Your task to perform on an android device: check battery use Image 0: 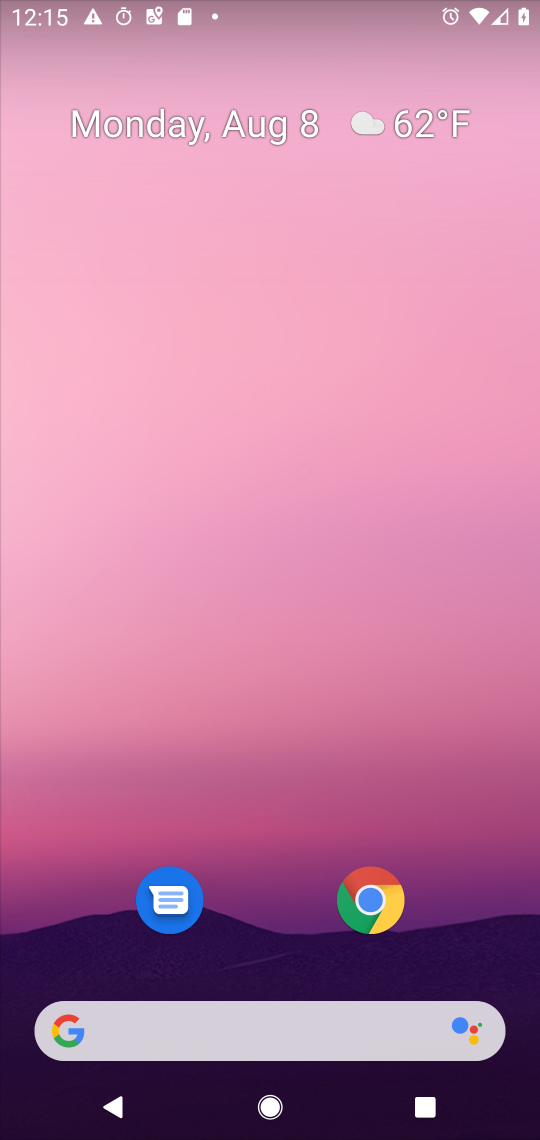
Step 0: press home button
Your task to perform on an android device: check battery use Image 1: 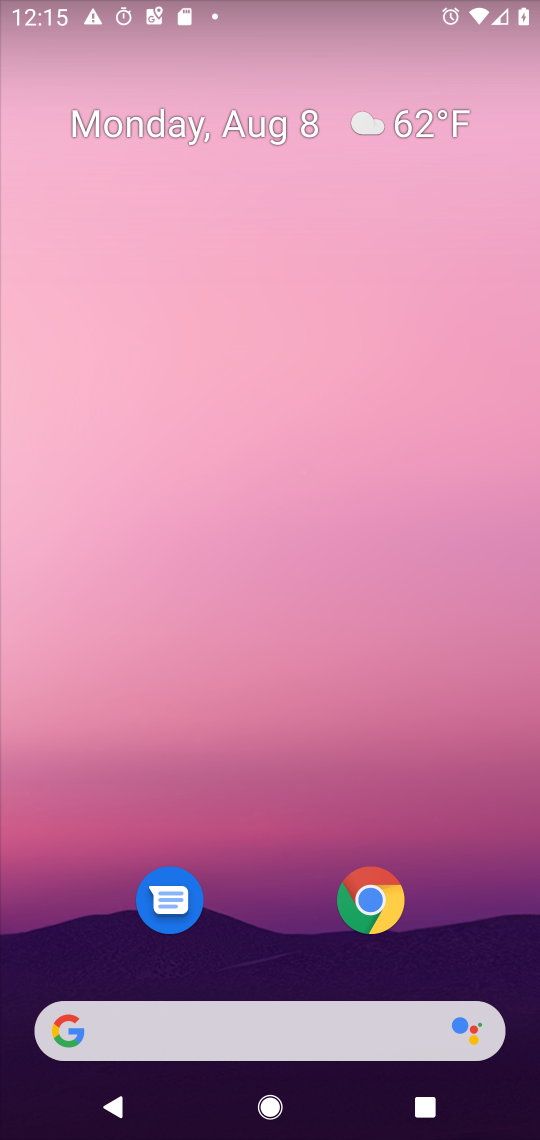
Step 1: drag from (277, 967) to (351, 52)
Your task to perform on an android device: check battery use Image 2: 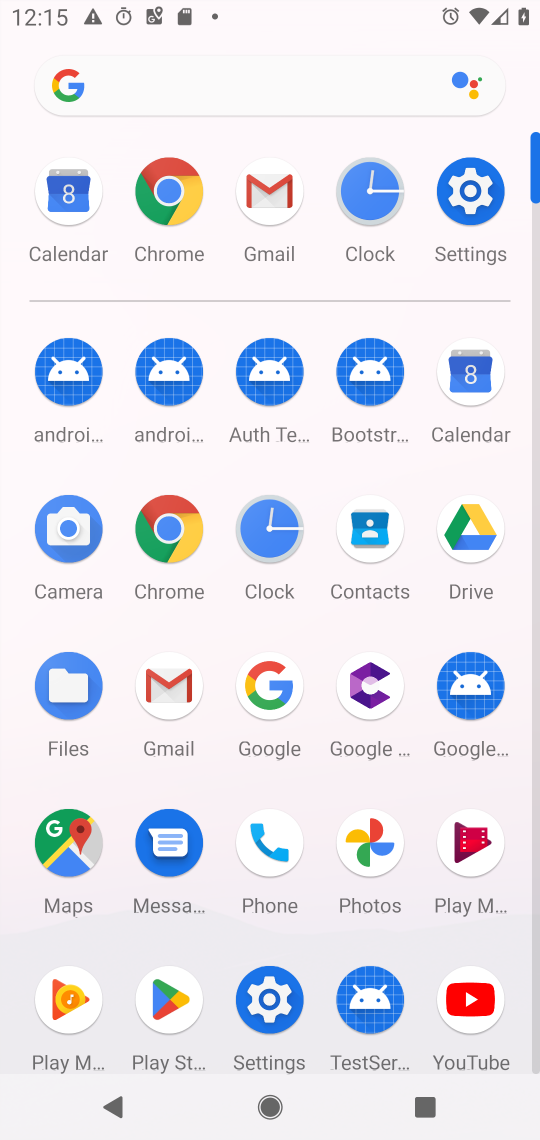
Step 2: click (465, 179)
Your task to perform on an android device: check battery use Image 3: 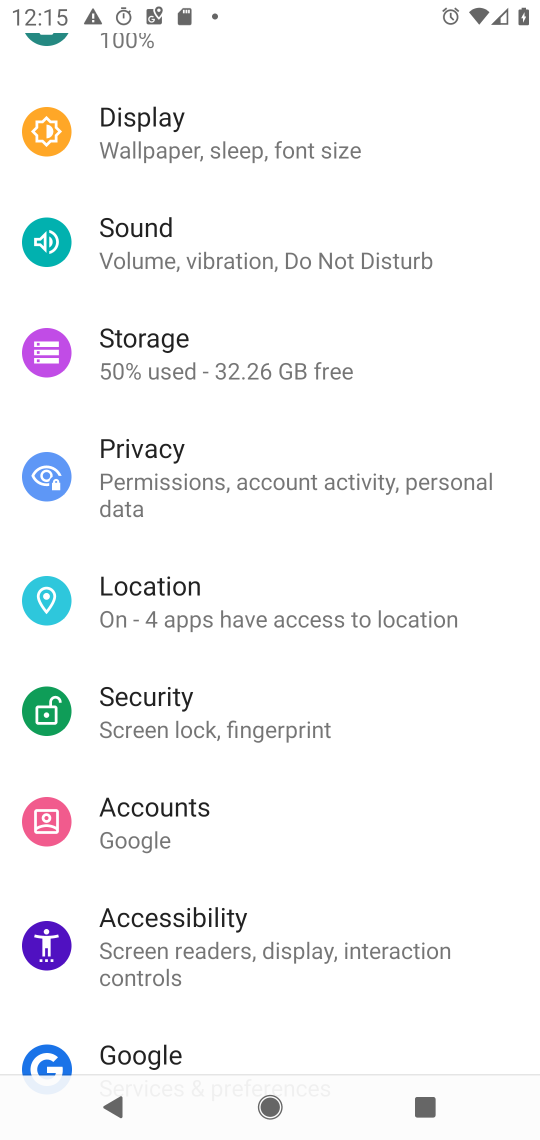
Step 3: drag from (209, 131) to (238, 842)
Your task to perform on an android device: check battery use Image 4: 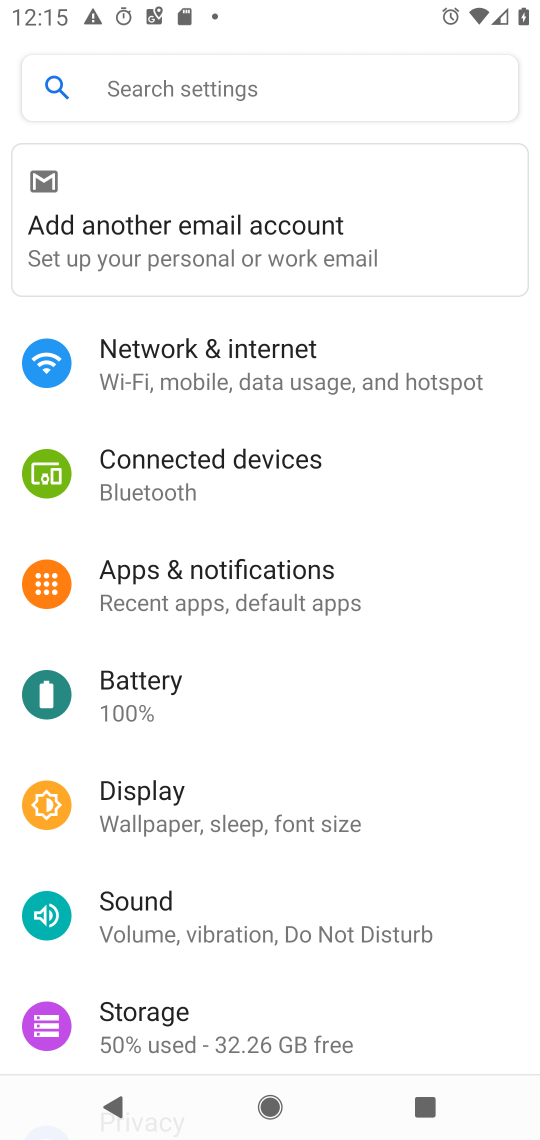
Step 4: click (205, 683)
Your task to perform on an android device: check battery use Image 5: 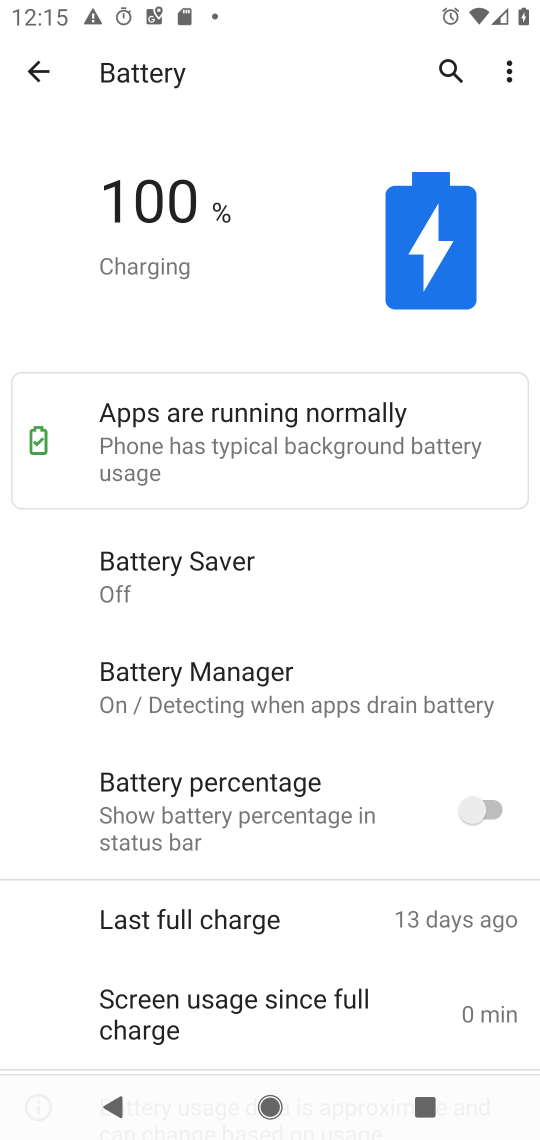
Step 5: click (510, 64)
Your task to perform on an android device: check battery use Image 6: 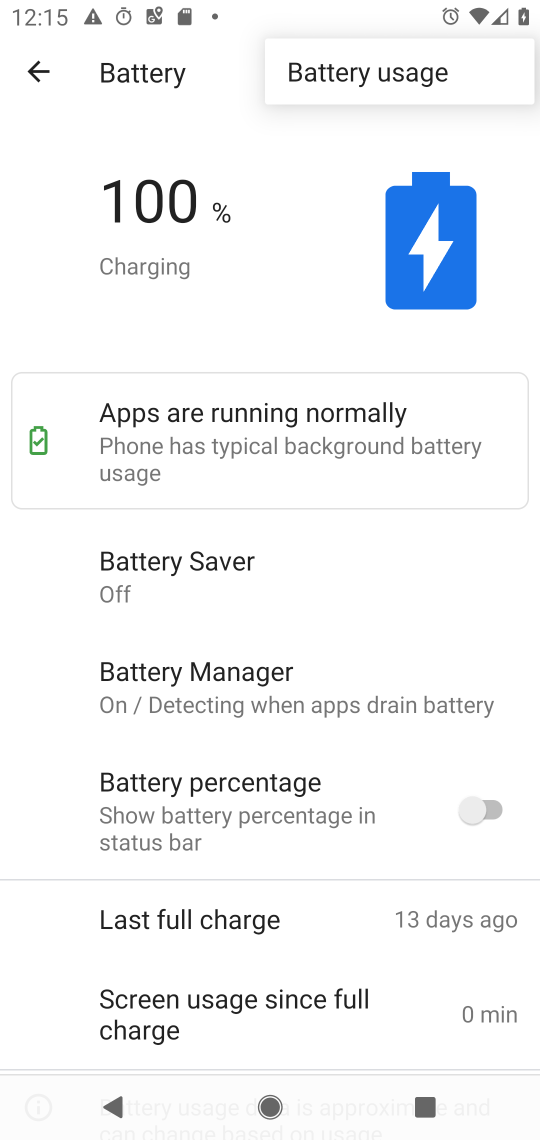
Step 6: click (353, 65)
Your task to perform on an android device: check battery use Image 7: 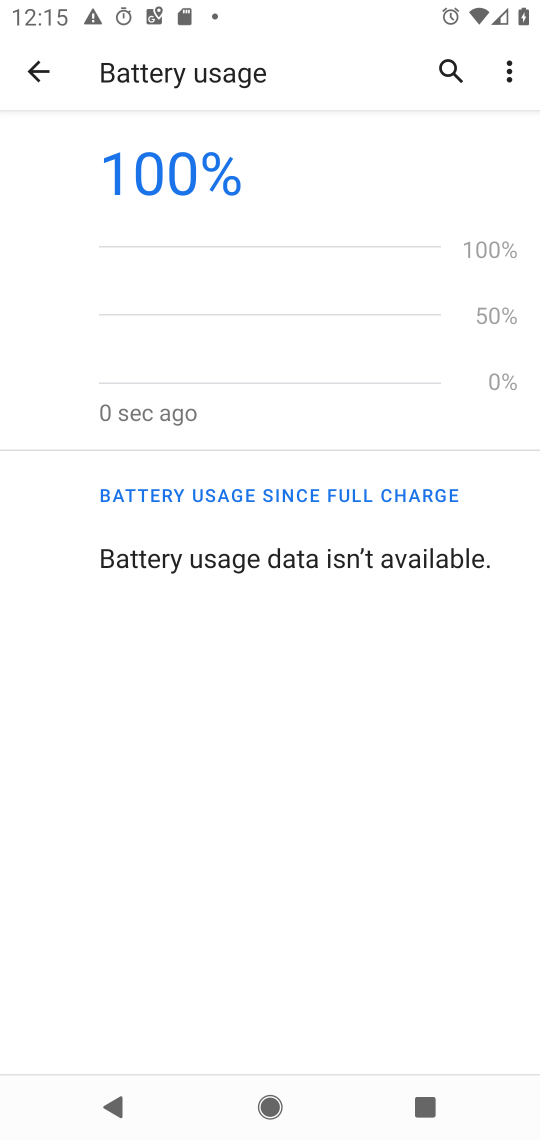
Step 7: task complete